Your task to perform on an android device: turn on wifi Image 0: 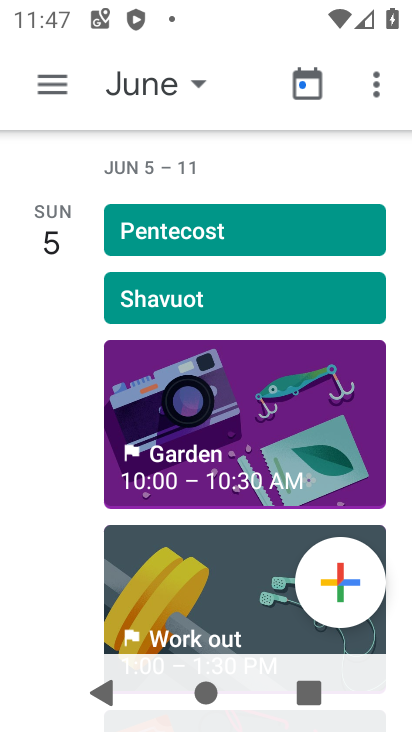
Step 0: press home button
Your task to perform on an android device: turn on wifi Image 1: 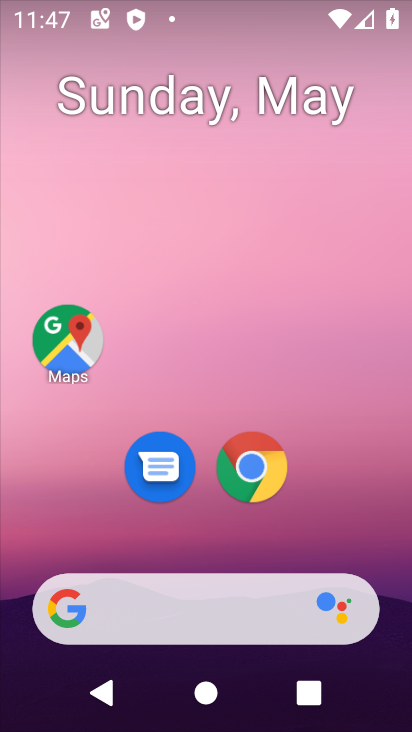
Step 1: task complete